Your task to perform on an android device: remove spam from my inbox in the gmail app Image 0: 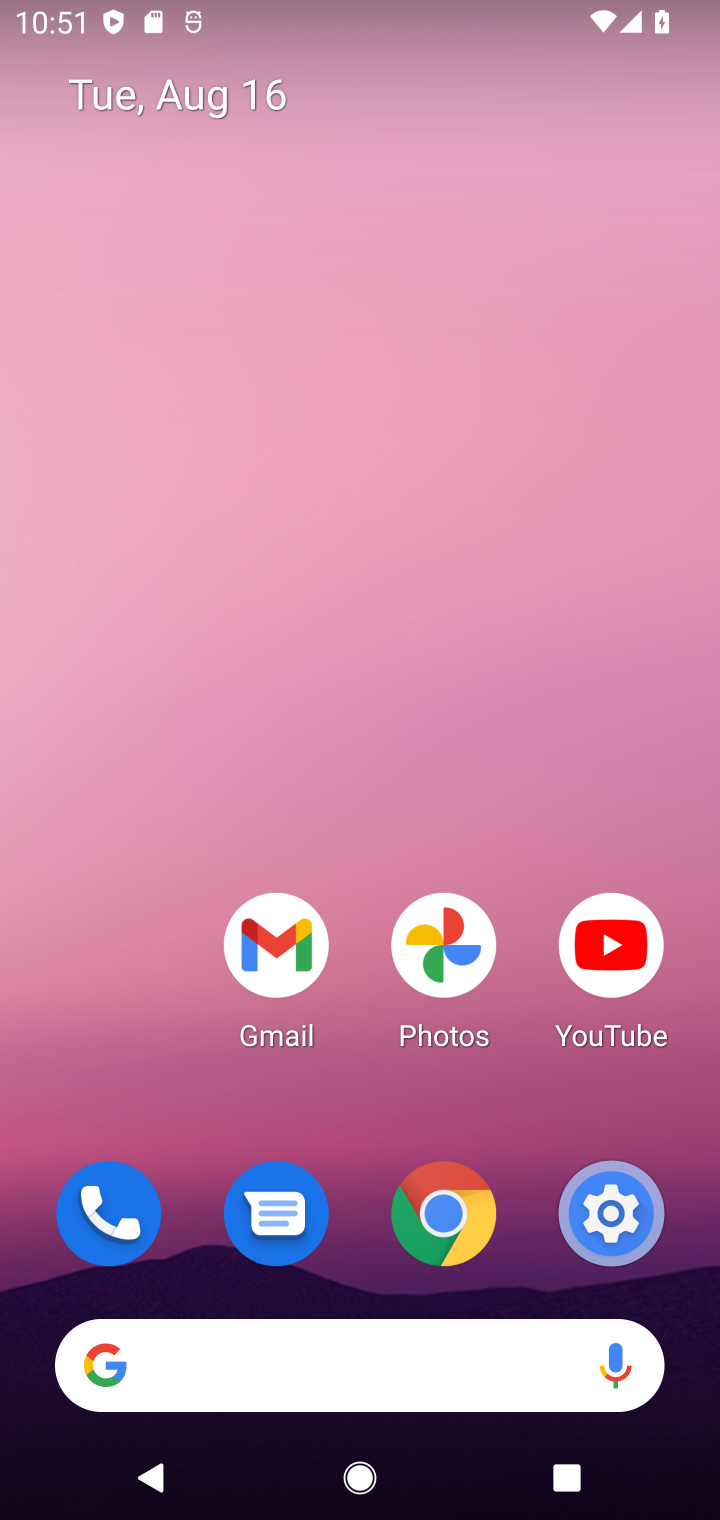
Step 0: drag from (550, 1117) to (511, 49)
Your task to perform on an android device: remove spam from my inbox in the gmail app Image 1: 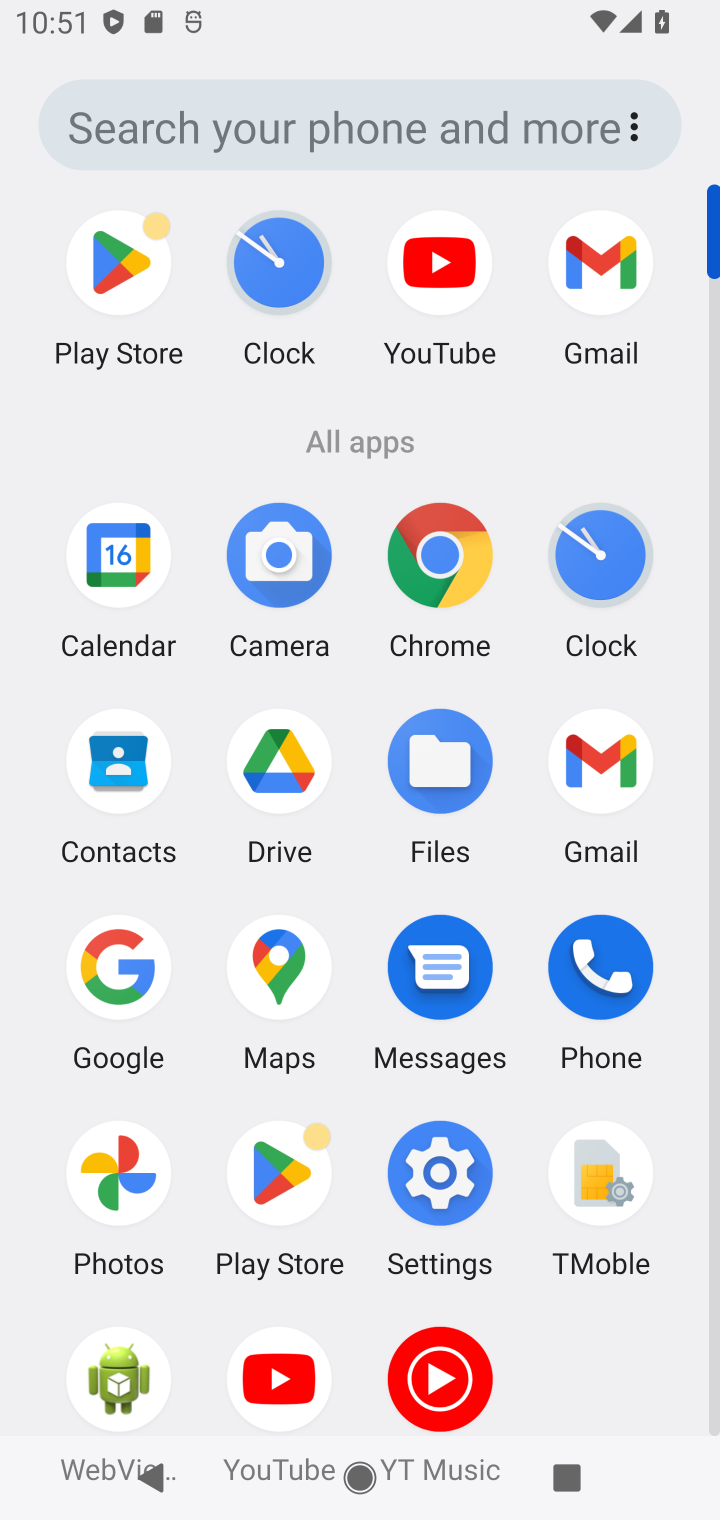
Step 1: click (591, 751)
Your task to perform on an android device: remove spam from my inbox in the gmail app Image 2: 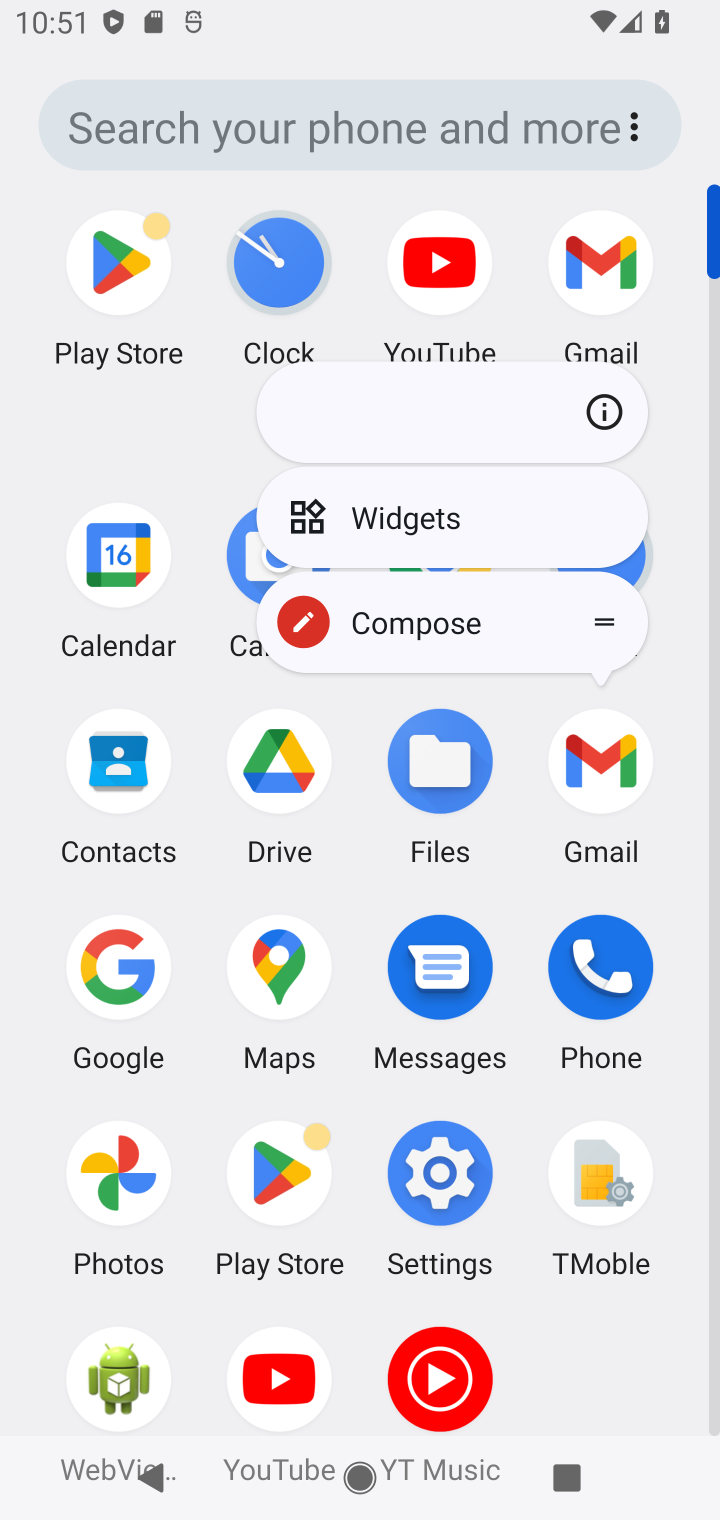
Step 2: click (574, 1336)
Your task to perform on an android device: remove spam from my inbox in the gmail app Image 3: 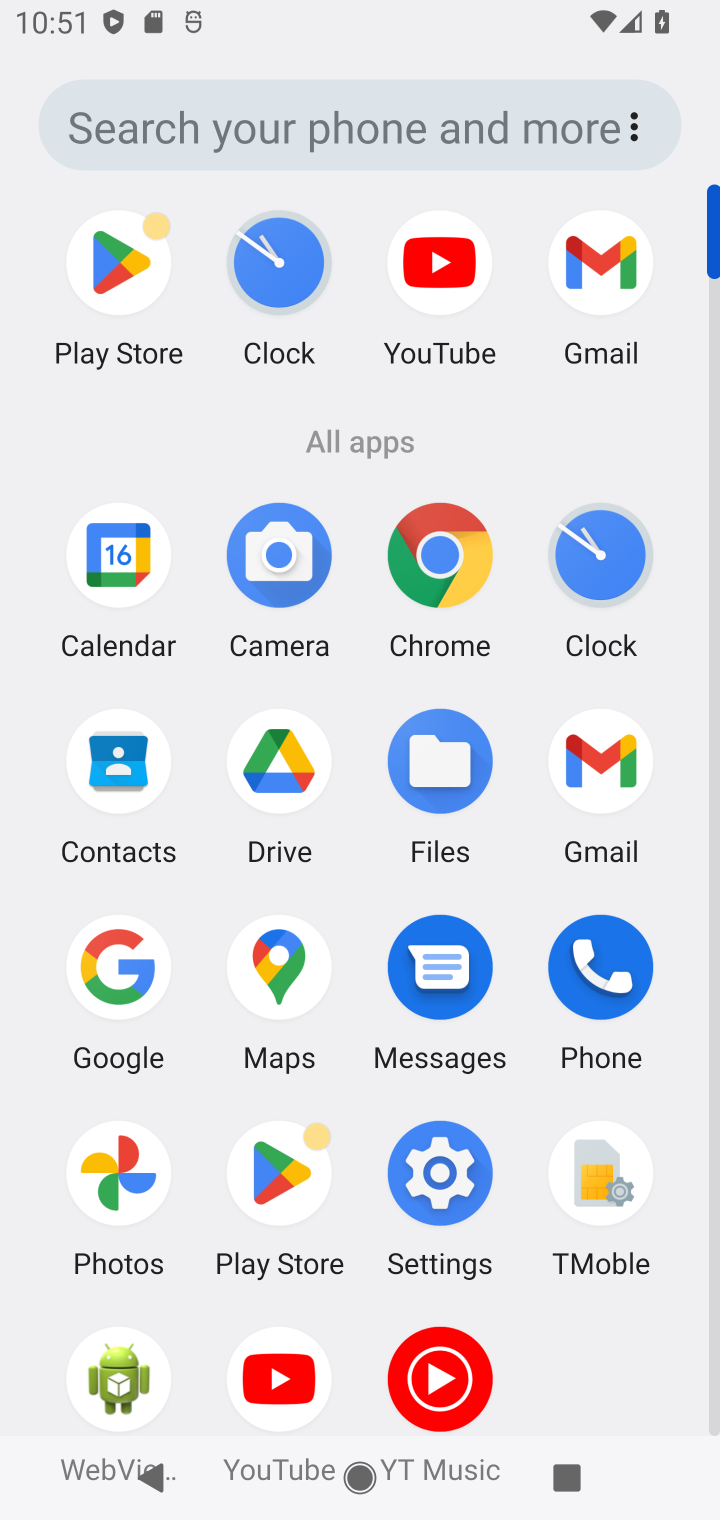
Step 3: click (604, 775)
Your task to perform on an android device: remove spam from my inbox in the gmail app Image 4: 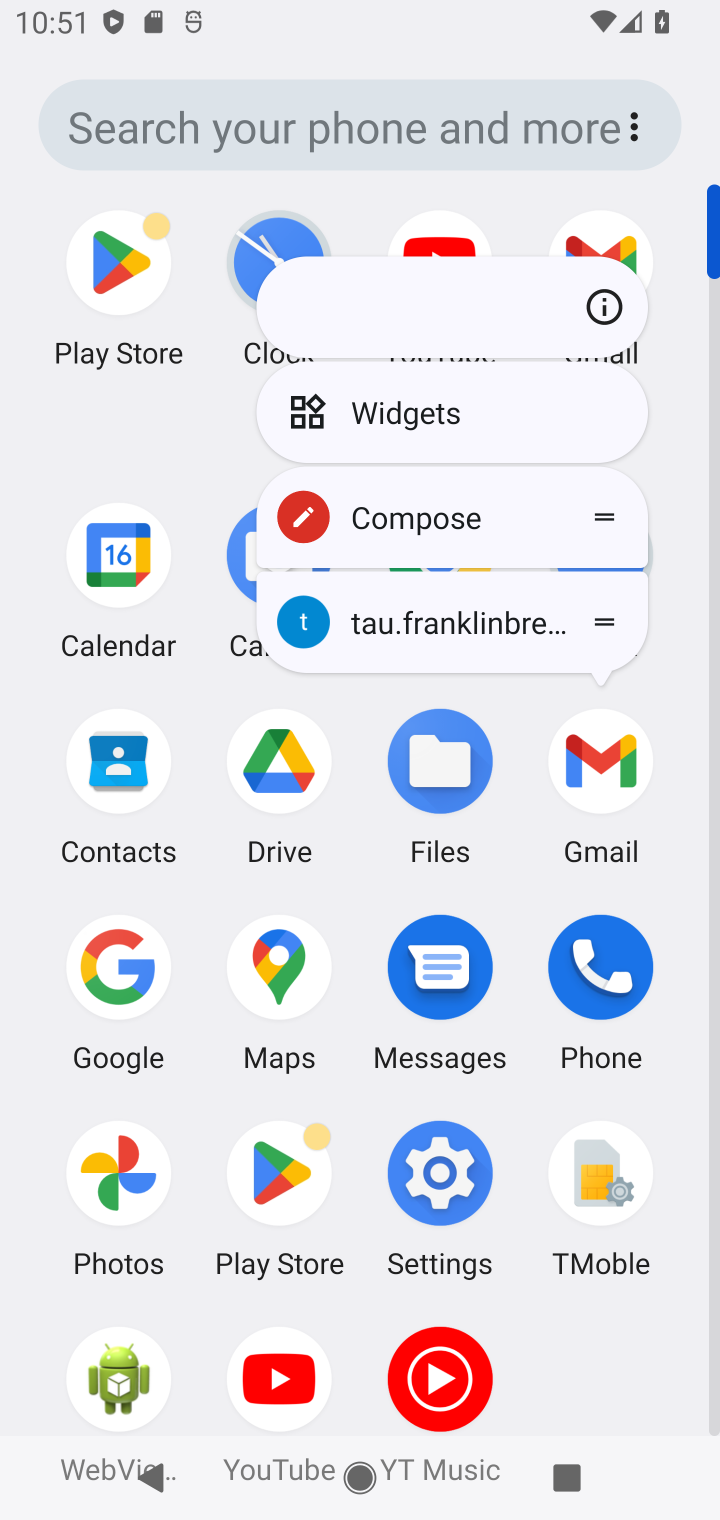
Step 4: click (604, 759)
Your task to perform on an android device: remove spam from my inbox in the gmail app Image 5: 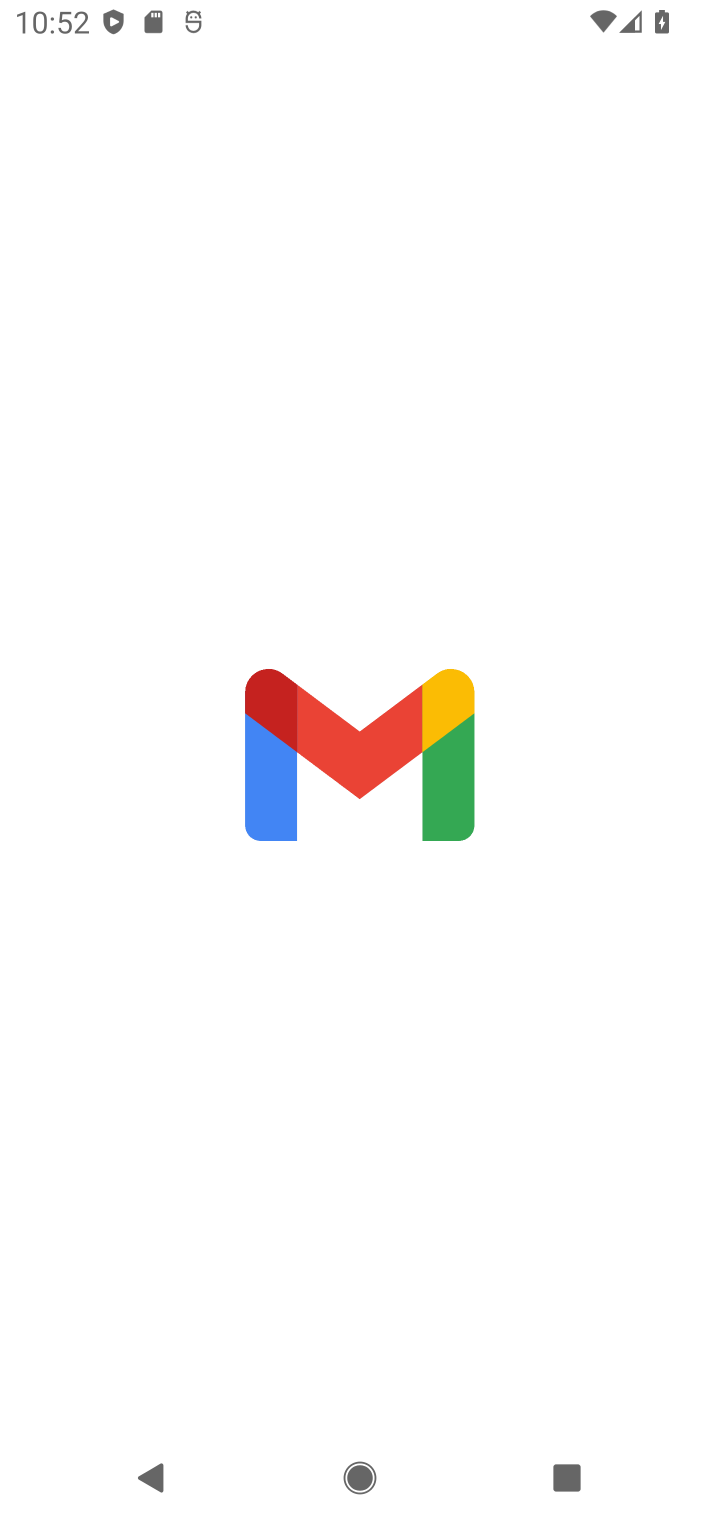
Step 5: click (604, 759)
Your task to perform on an android device: remove spam from my inbox in the gmail app Image 6: 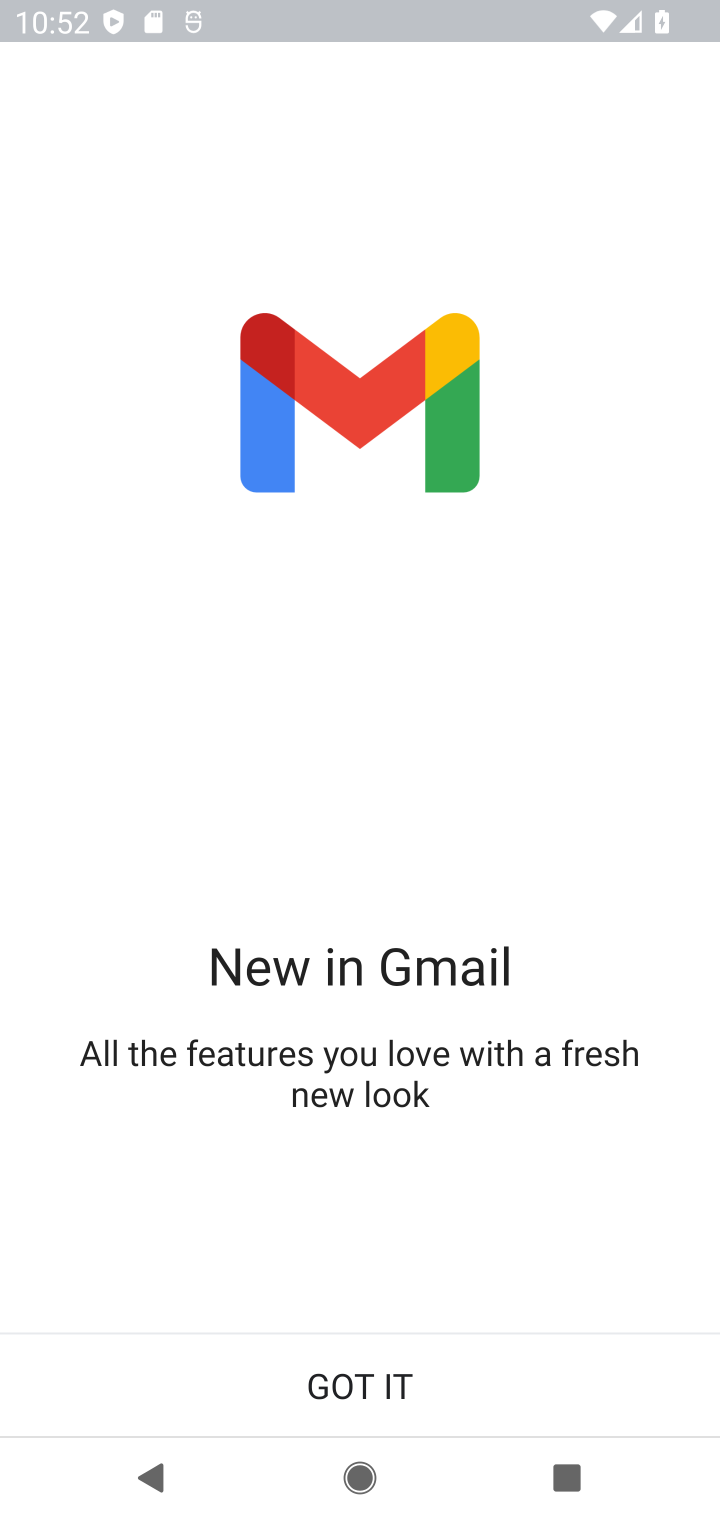
Step 6: click (336, 1381)
Your task to perform on an android device: remove spam from my inbox in the gmail app Image 7: 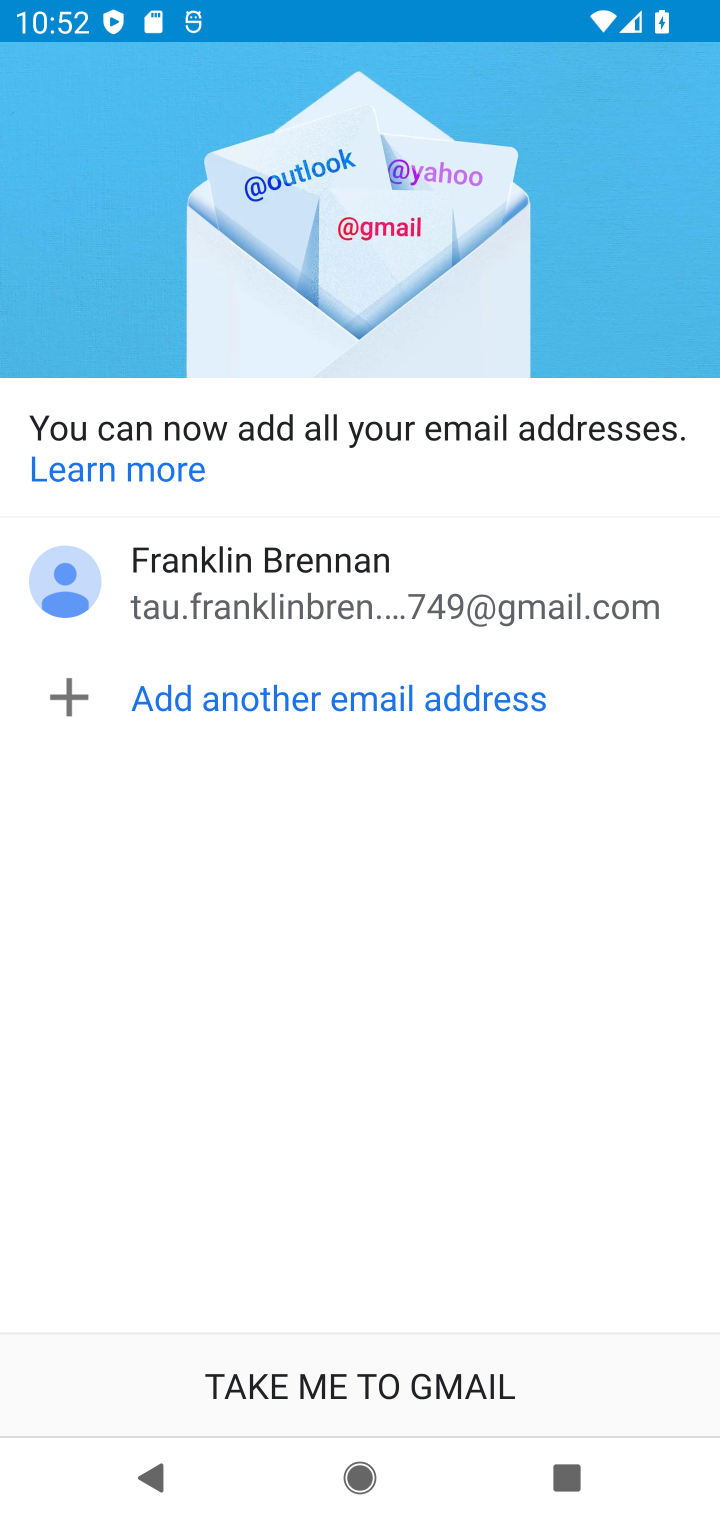
Step 7: click (462, 1394)
Your task to perform on an android device: remove spam from my inbox in the gmail app Image 8: 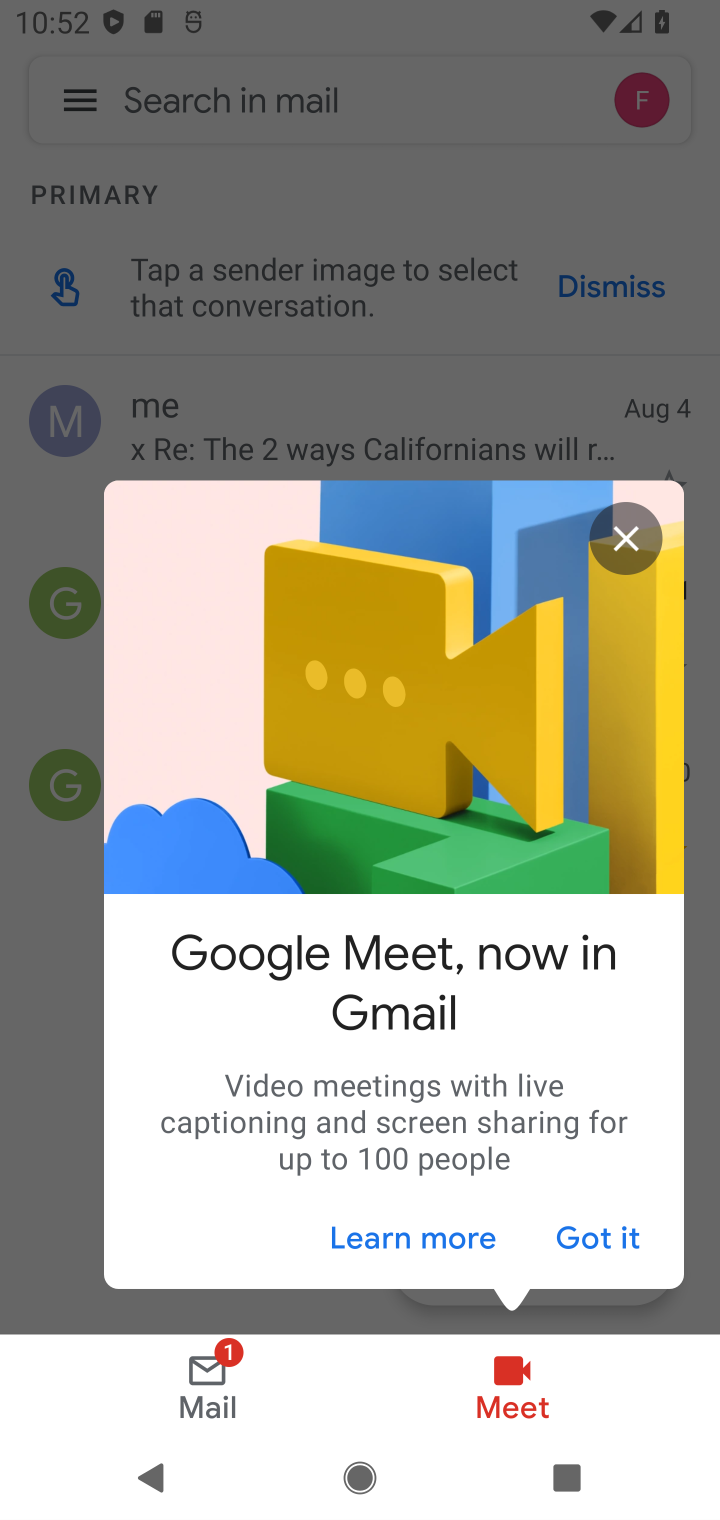
Step 8: click (216, 1385)
Your task to perform on an android device: remove spam from my inbox in the gmail app Image 9: 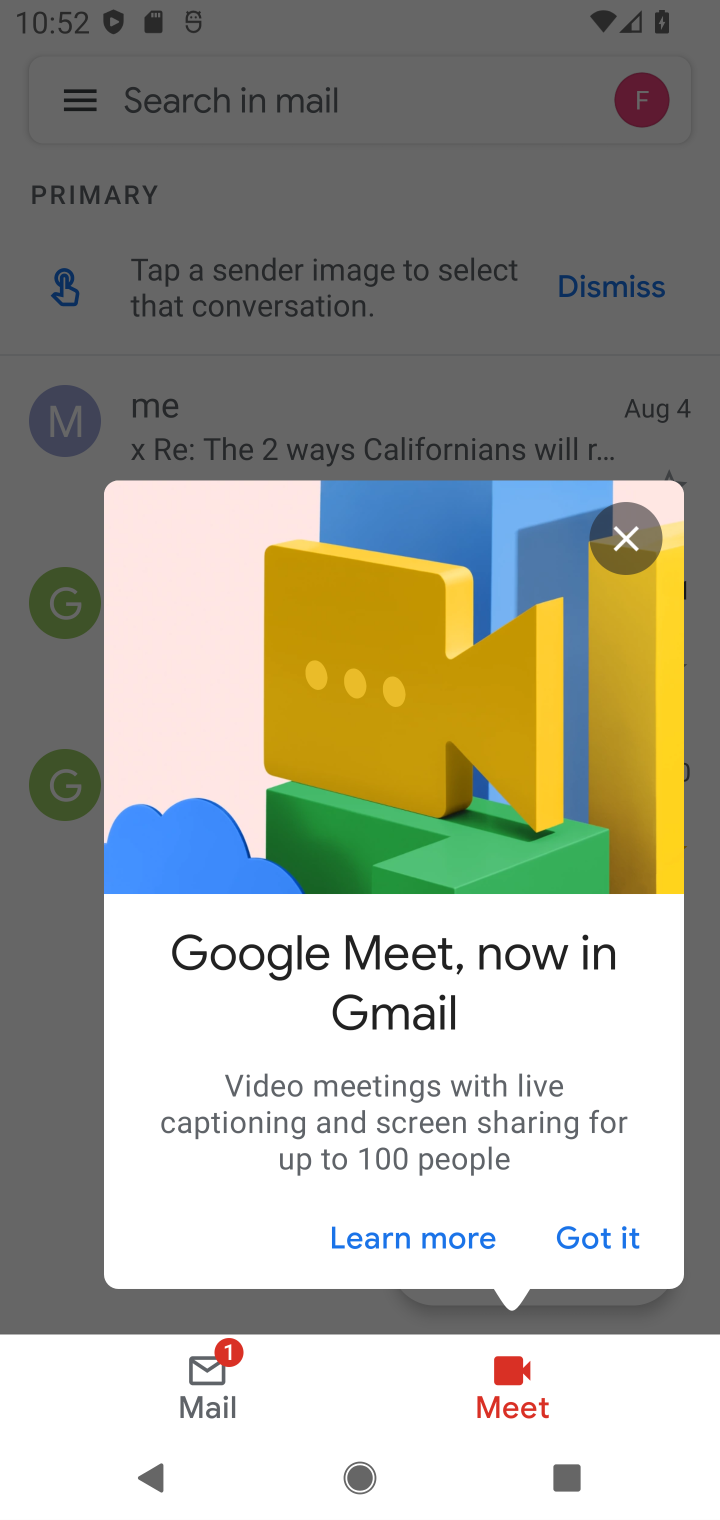
Step 9: click (216, 1363)
Your task to perform on an android device: remove spam from my inbox in the gmail app Image 10: 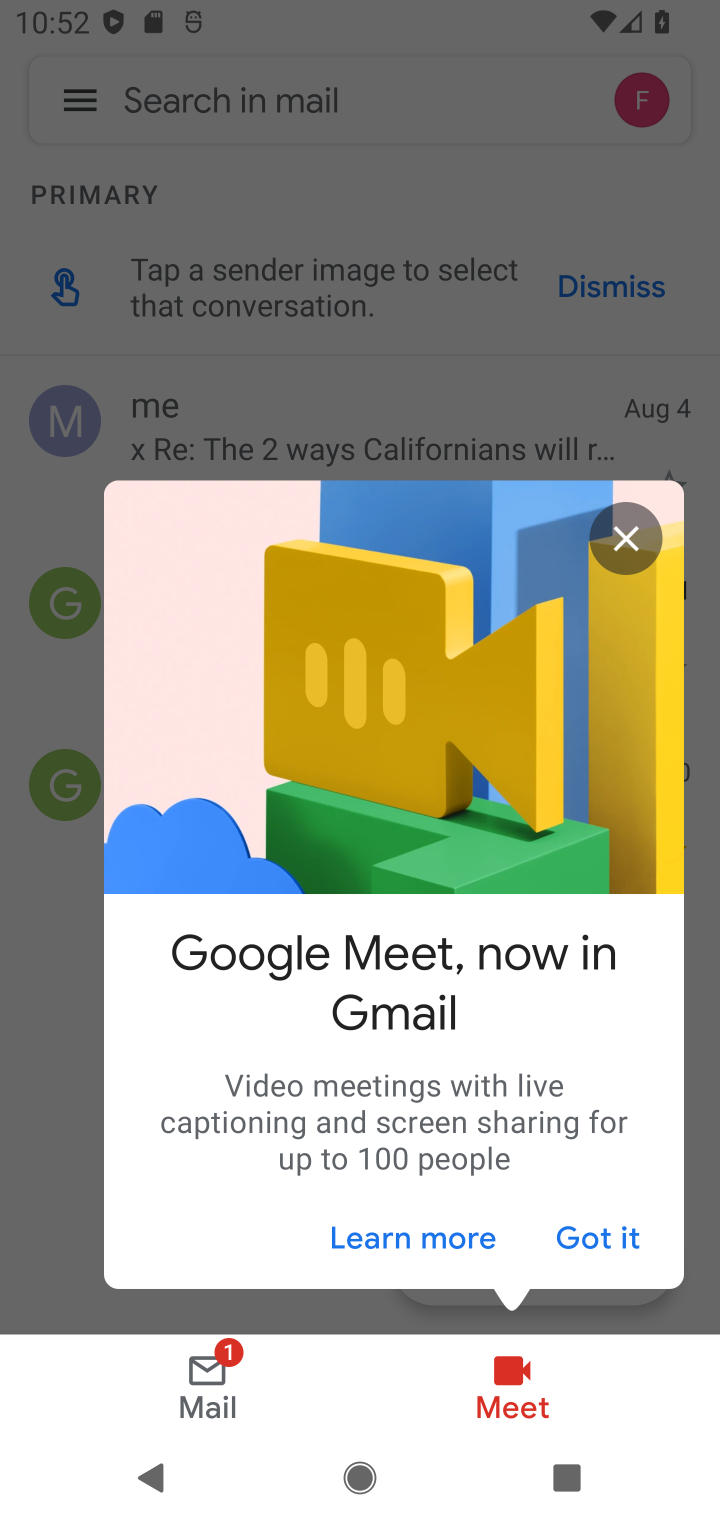
Step 10: click (612, 516)
Your task to perform on an android device: remove spam from my inbox in the gmail app Image 11: 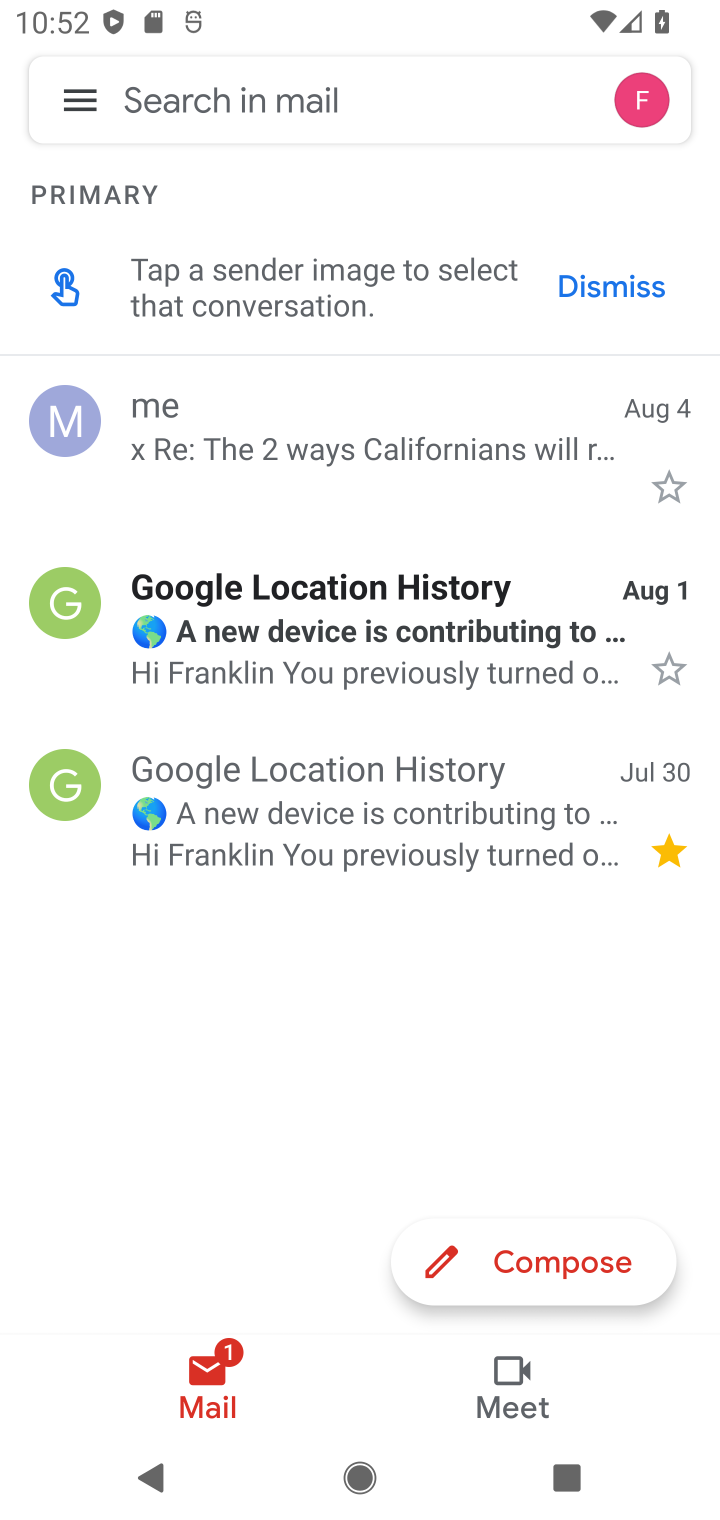
Step 11: task complete